Your task to perform on an android device: check the backup settings in the google photos Image 0: 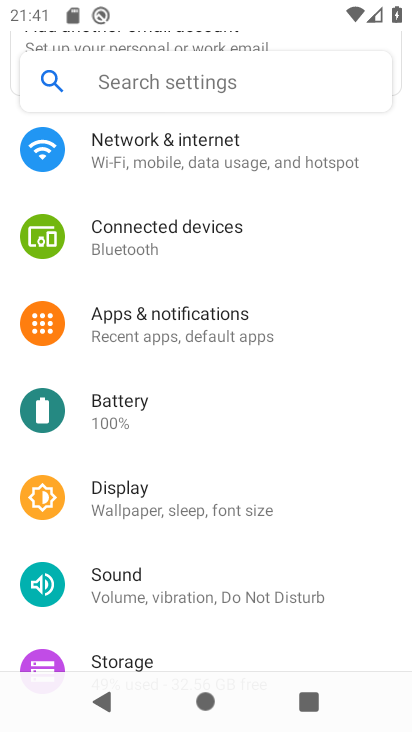
Step 0: press home button
Your task to perform on an android device: check the backup settings in the google photos Image 1: 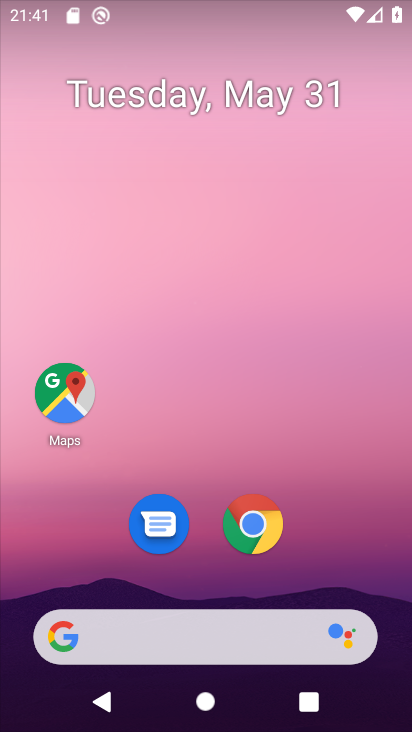
Step 1: drag from (321, 555) to (322, 14)
Your task to perform on an android device: check the backup settings in the google photos Image 2: 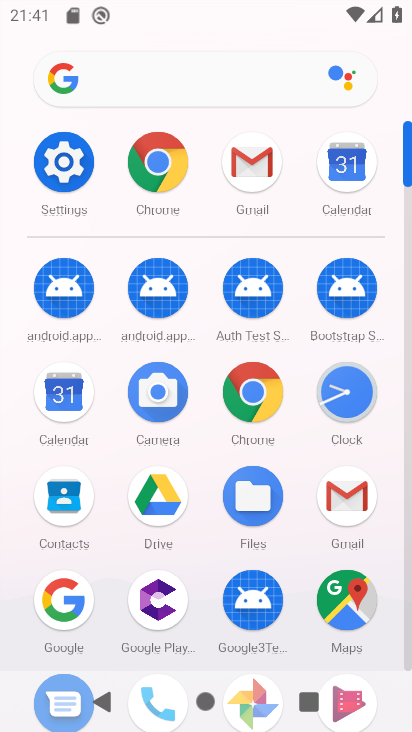
Step 2: drag from (300, 353) to (316, 153)
Your task to perform on an android device: check the backup settings in the google photos Image 3: 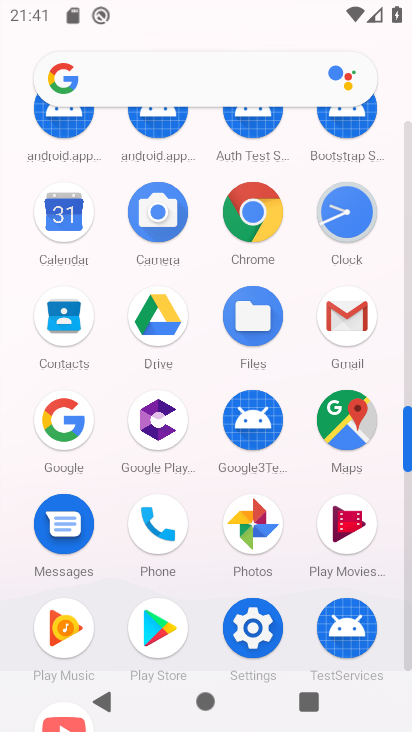
Step 3: click (252, 512)
Your task to perform on an android device: check the backup settings in the google photos Image 4: 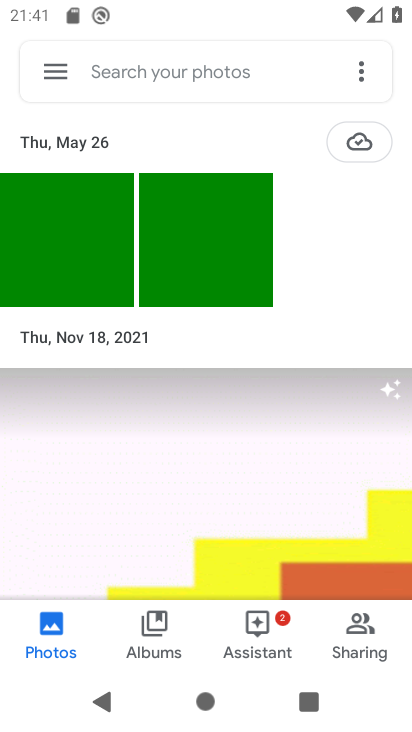
Step 4: click (57, 69)
Your task to perform on an android device: check the backup settings in the google photos Image 5: 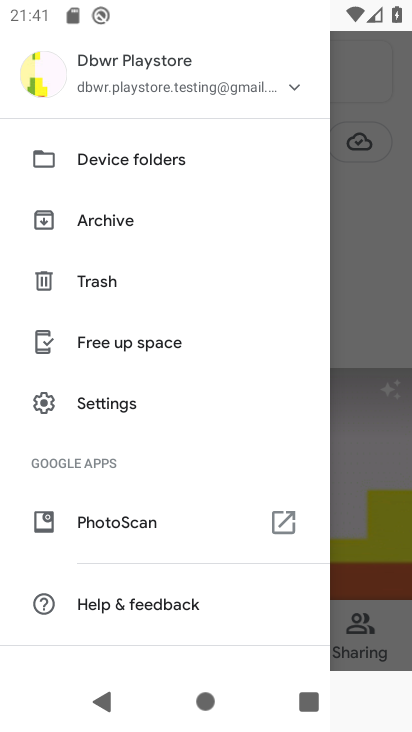
Step 5: click (101, 389)
Your task to perform on an android device: check the backup settings in the google photos Image 6: 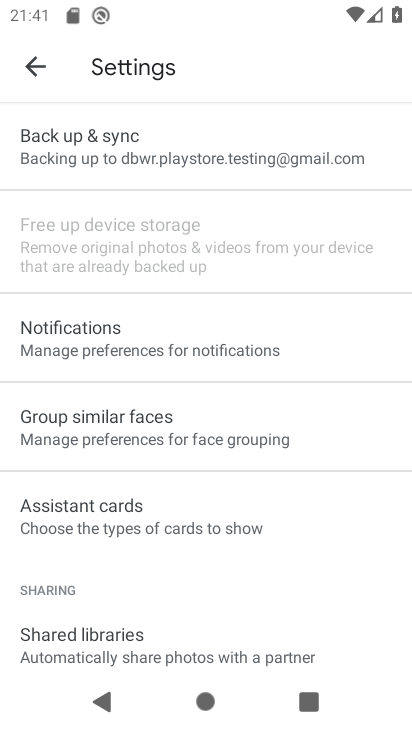
Step 6: click (221, 157)
Your task to perform on an android device: check the backup settings in the google photos Image 7: 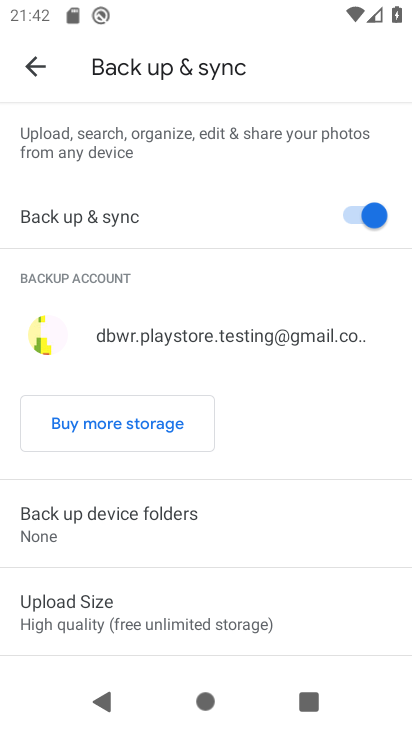
Step 7: task complete